Your task to perform on an android device: open a bookmark in the chrome app Image 0: 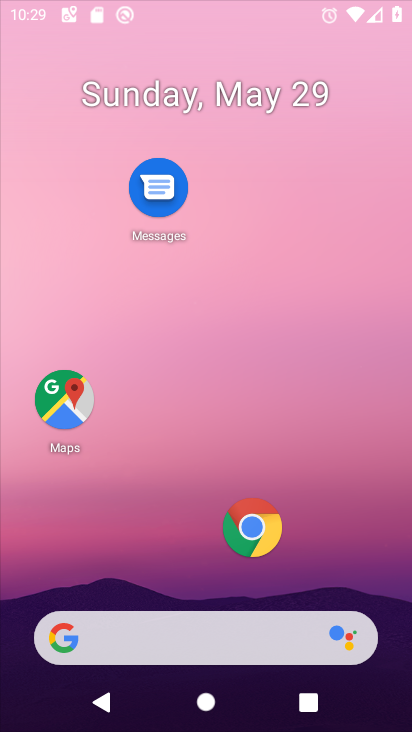
Step 0: press home button
Your task to perform on an android device: open a bookmark in the chrome app Image 1: 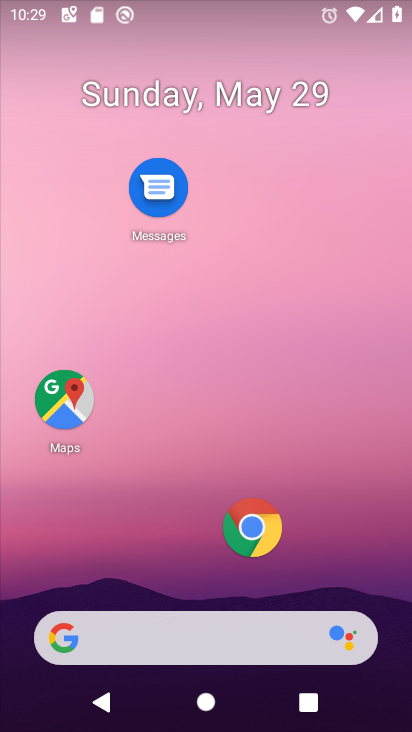
Step 1: click (255, 528)
Your task to perform on an android device: open a bookmark in the chrome app Image 2: 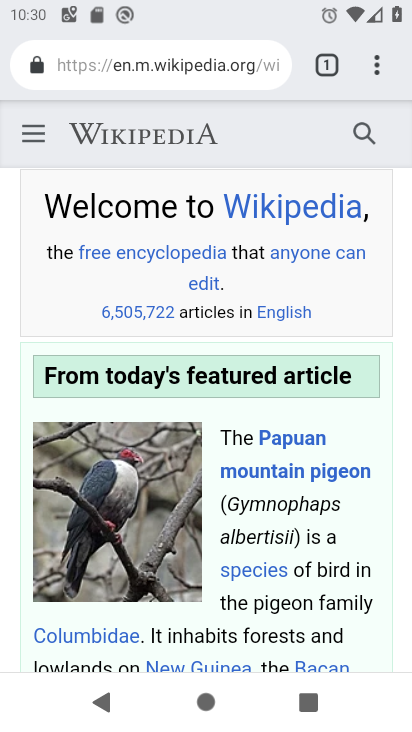
Step 2: click (378, 61)
Your task to perform on an android device: open a bookmark in the chrome app Image 3: 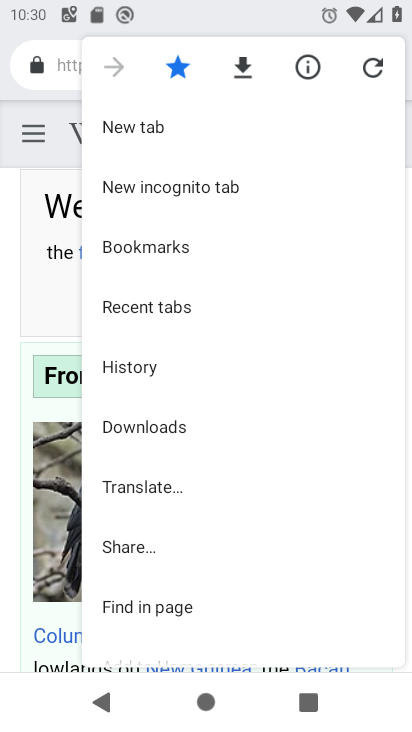
Step 3: click (194, 240)
Your task to perform on an android device: open a bookmark in the chrome app Image 4: 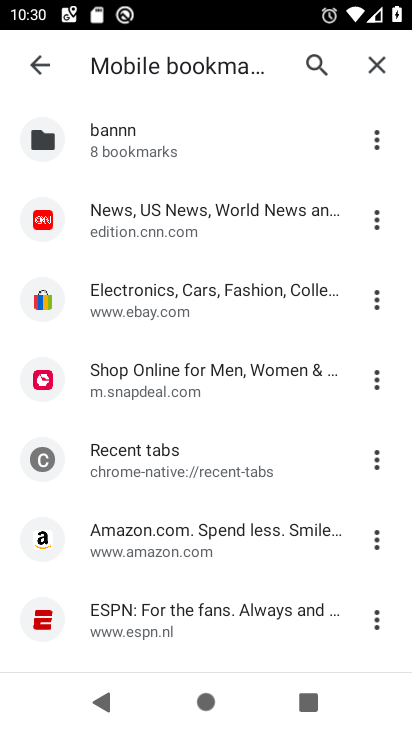
Step 4: click (170, 446)
Your task to perform on an android device: open a bookmark in the chrome app Image 5: 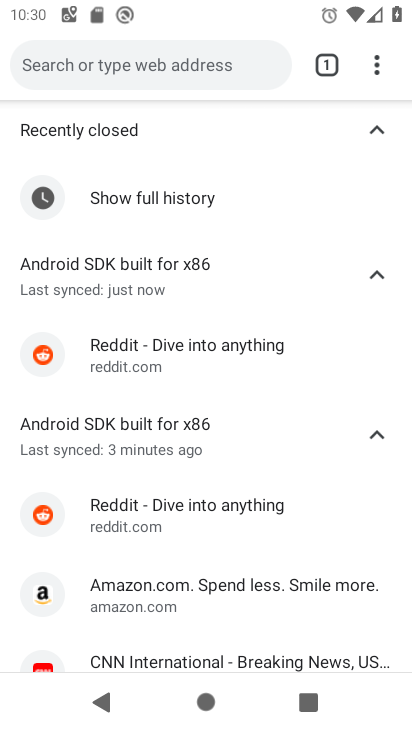
Step 5: task complete